Your task to perform on an android device: add a label to a message in the gmail app Image 0: 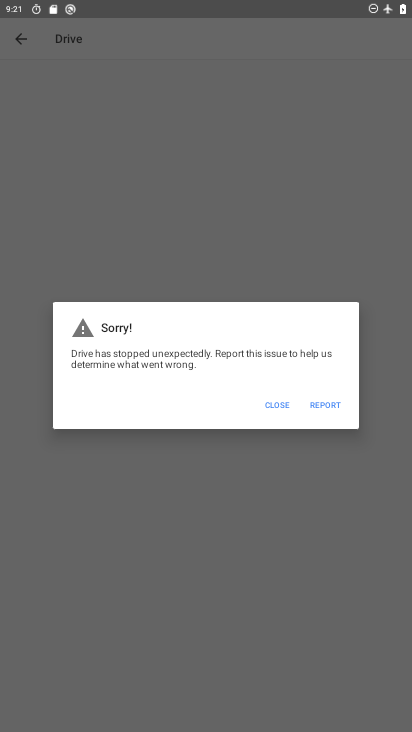
Step 0: drag from (295, 637) to (253, 139)
Your task to perform on an android device: add a label to a message in the gmail app Image 1: 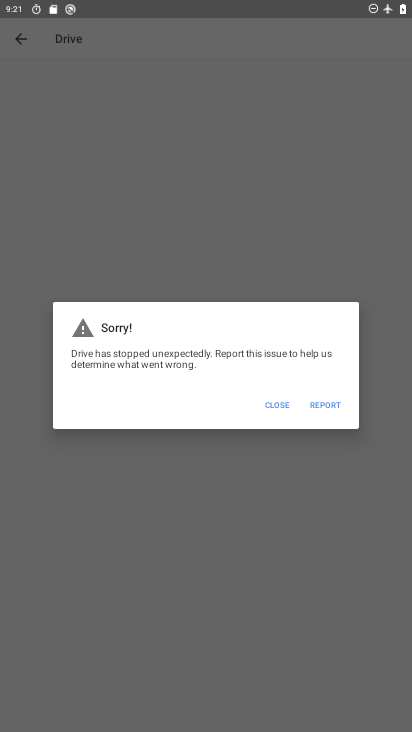
Step 1: press home button
Your task to perform on an android device: add a label to a message in the gmail app Image 2: 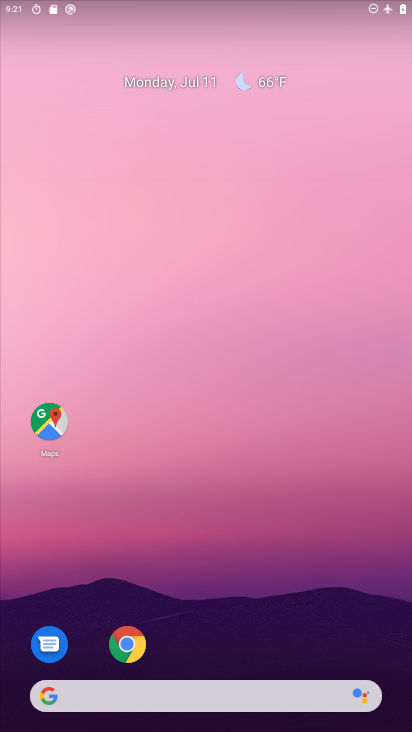
Step 2: drag from (303, 499) to (194, 5)
Your task to perform on an android device: add a label to a message in the gmail app Image 3: 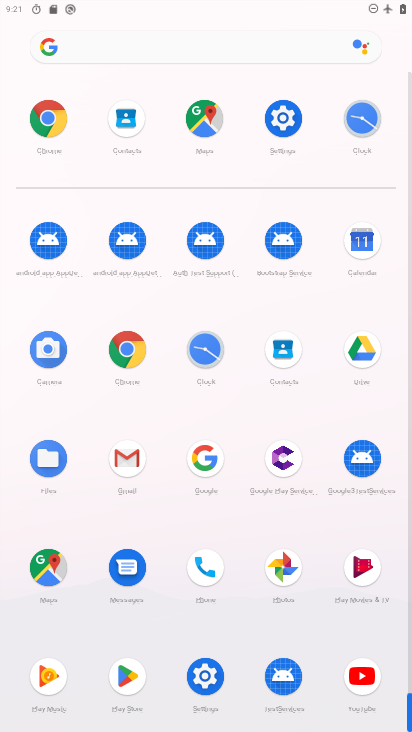
Step 3: click (124, 467)
Your task to perform on an android device: add a label to a message in the gmail app Image 4: 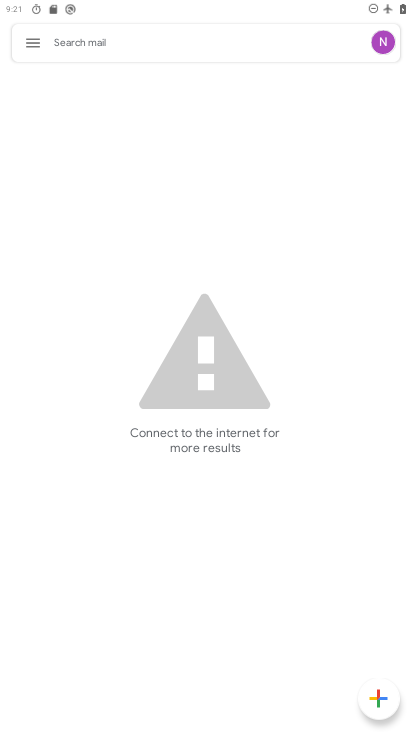
Step 4: task complete